Your task to perform on an android device: See recent photos Image 0: 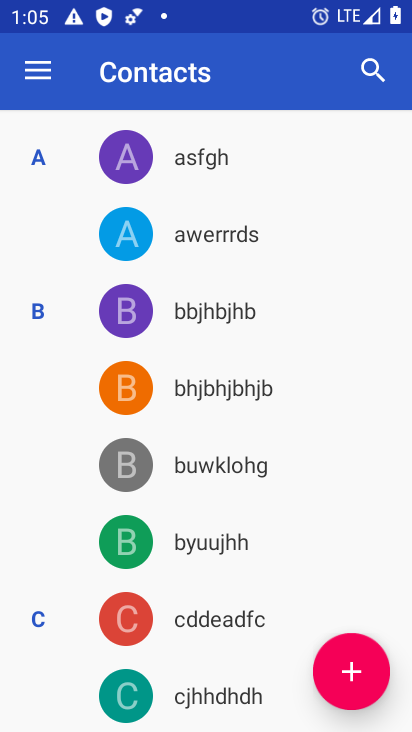
Step 0: press home button
Your task to perform on an android device: See recent photos Image 1: 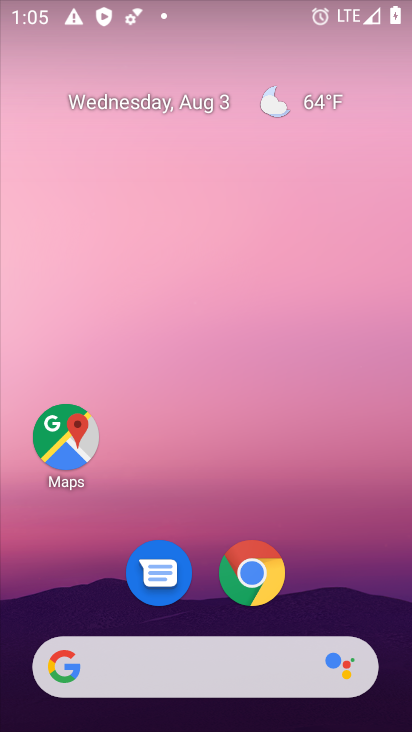
Step 1: drag from (236, 586) to (284, 0)
Your task to perform on an android device: See recent photos Image 2: 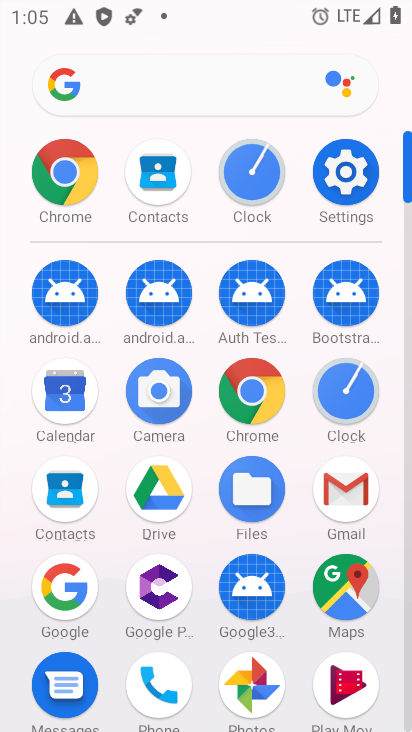
Step 2: drag from (246, 483) to (275, 198)
Your task to perform on an android device: See recent photos Image 3: 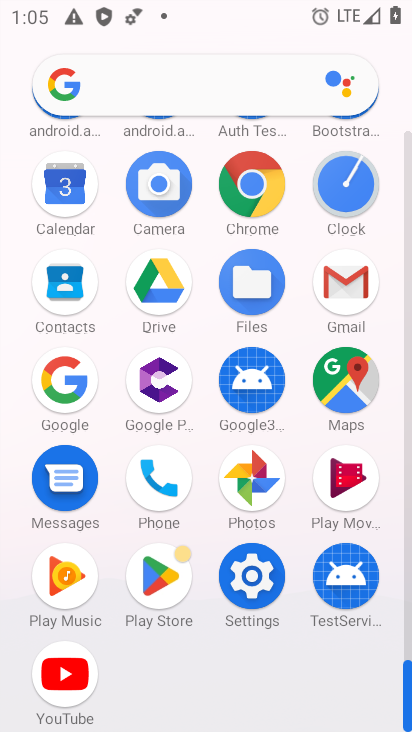
Step 3: click (253, 486)
Your task to perform on an android device: See recent photos Image 4: 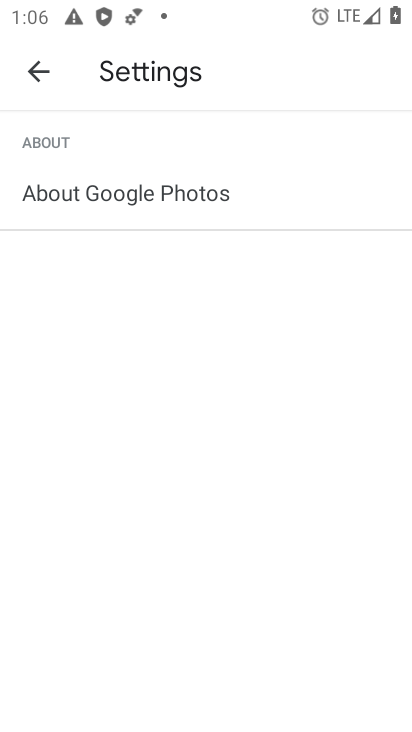
Step 4: click (46, 75)
Your task to perform on an android device: See recent photos Image 5: 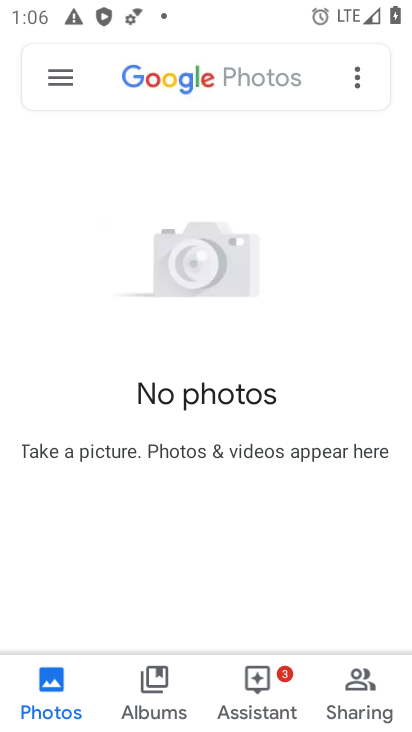
Step 5: task complete